Your task to perform on an android device: turn on notifications settings in the gmail app Image 0: 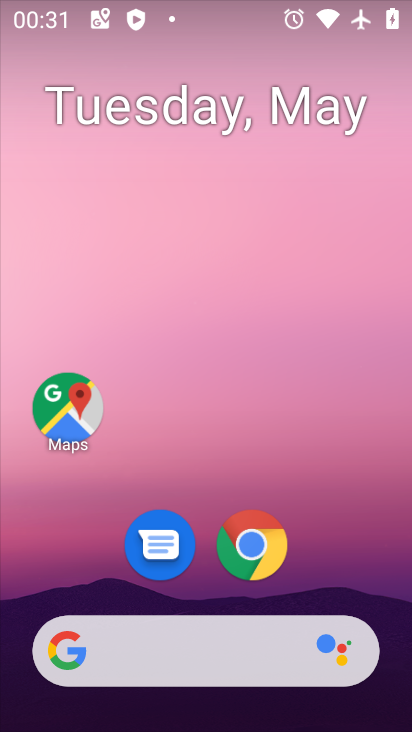
Step 0: drag from (360, 621) to (341, 0)
Your task to perform on an android device: turn on notifications settings in the gmail app Image 1: 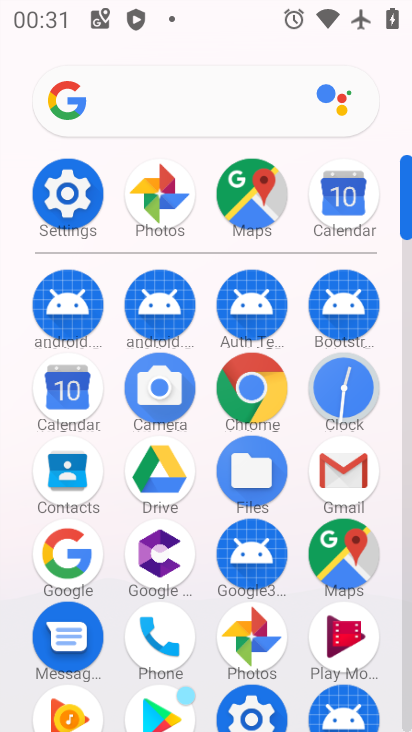
Step 1: click (336, 481)
Your task to perform on an android device: turn on notifications settings in the gmail app Image 2: 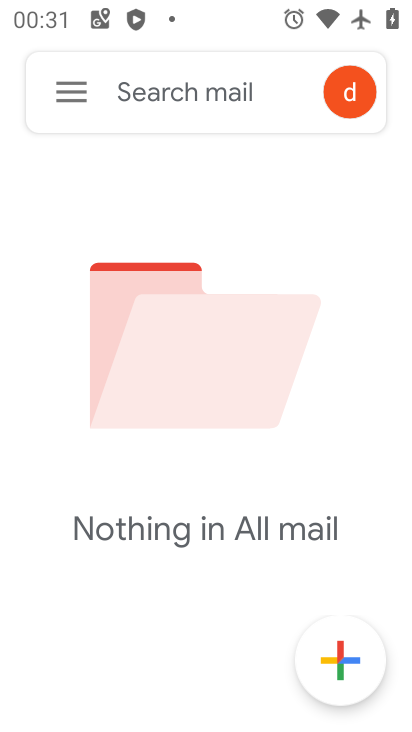
Step 2: click (81, 94)
Your task to perform on an android device: turn on notifications settings in the gmail app Image 3: 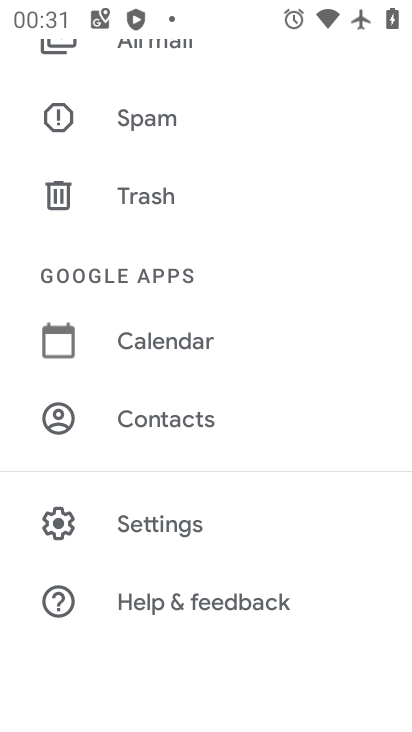
Step 3: click (111, 521)
Your task to perform on an android device: turn on notifications settings in the gmail app Image 4: 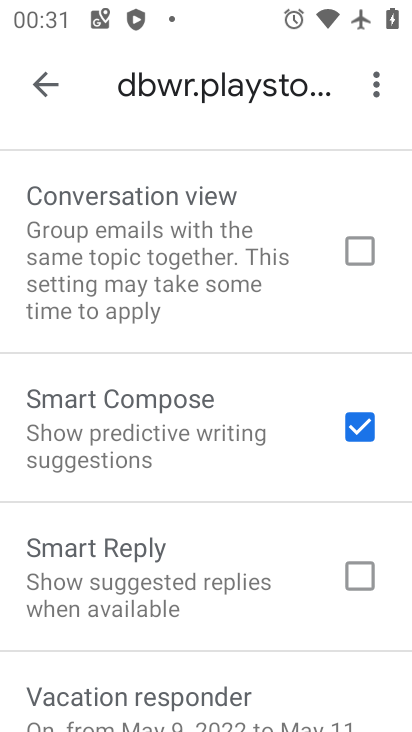
Step 4: drag from (160, 480) to (170, 534)
Your task to perform on an android device: turn on notifications settings in the gmail app Image 5: 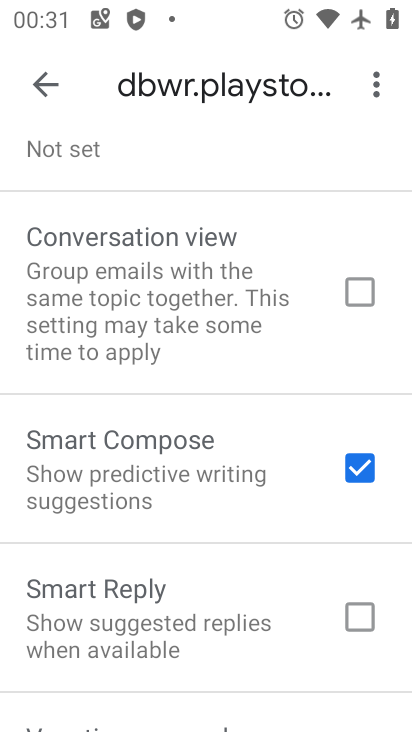
Step 5: drag from (140, 452) to (137, 555)
Your task to perform on an android device: turn on notifications settings in the gmail app Image 6: 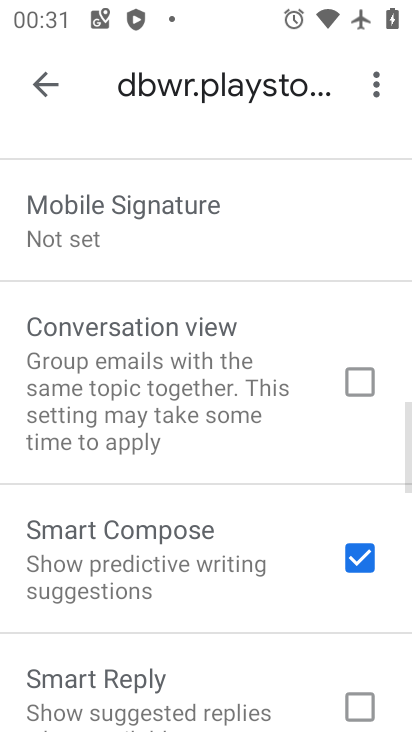
Step 6: drag from (159, 384) to (155, 525)
Your task to perform on an android device: turn on notifications settings in the gmail app Image 7: 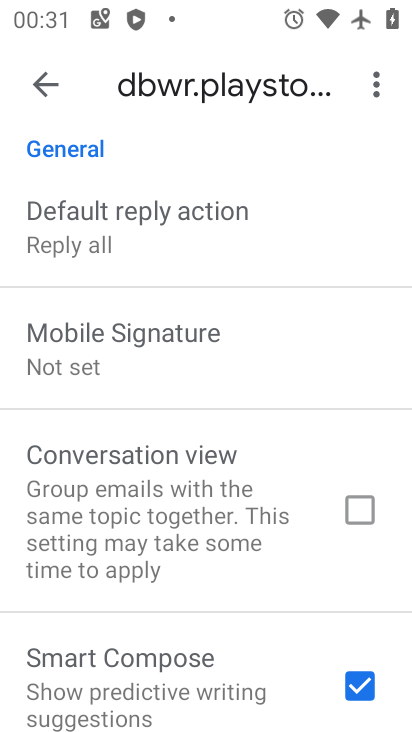
Step 7: drag from (191, 330) to (199, 438)
Your task to perform on an android device: turn on notifications settings in the gmail app Image 8: 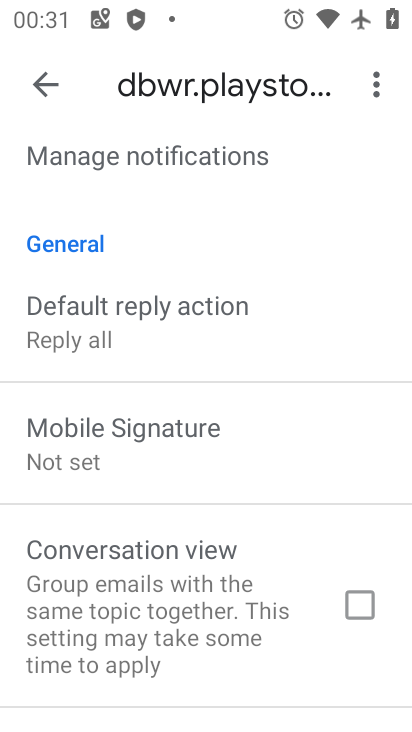
Step 8: drag from (240, 335) to (225, 524)
Your task to perform on an android device: turn on notifications settings in the gmail app Image 9: 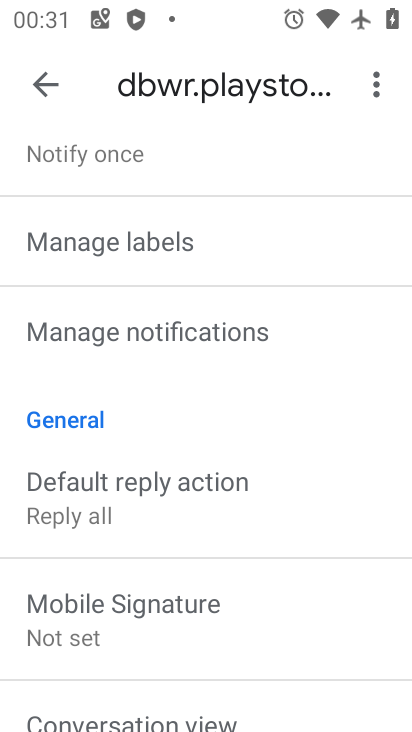
Step 9: click (160, 322)
Your task to perform on an android device: turn on notifications settings in the gmail app Image 10: 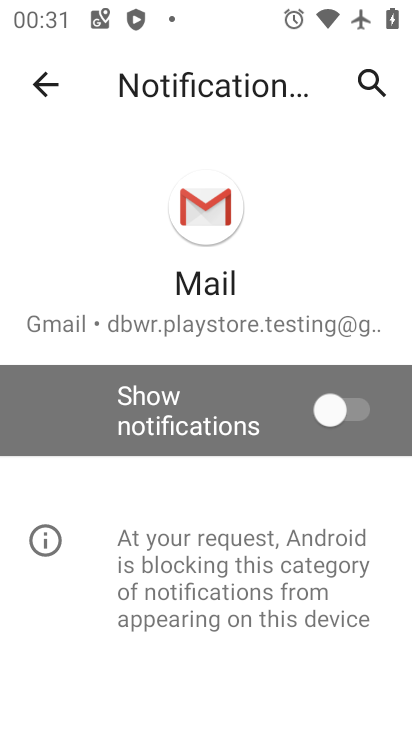
Step 10: click (335, 416)
Your task to perform on an android device: turn on notifications settings in the gmail app Image 11: 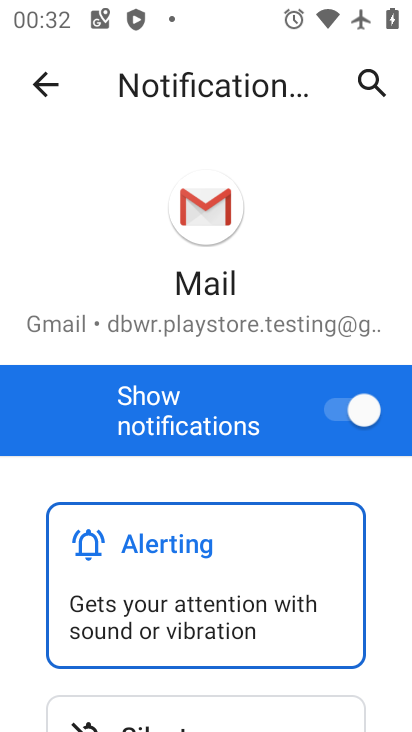
Step 11: task complete